Your task to perform on an android device: manage bookmarks in the chrome app Image 0: 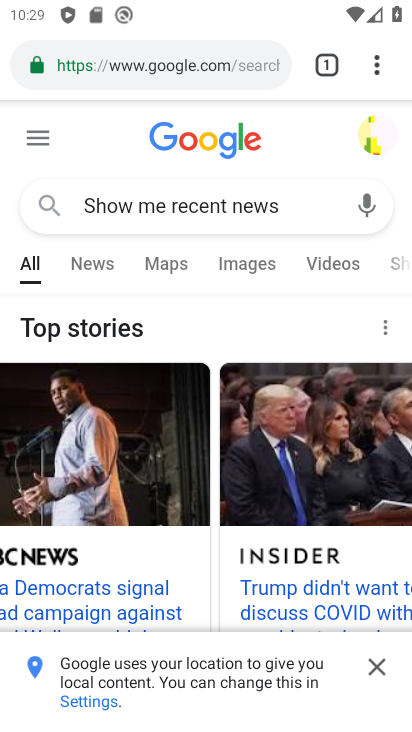
Step 0: drag from (377, 67) to (159, 240)
Your task to perform on an android device: manage bookmarks in the chrome app Image 1: 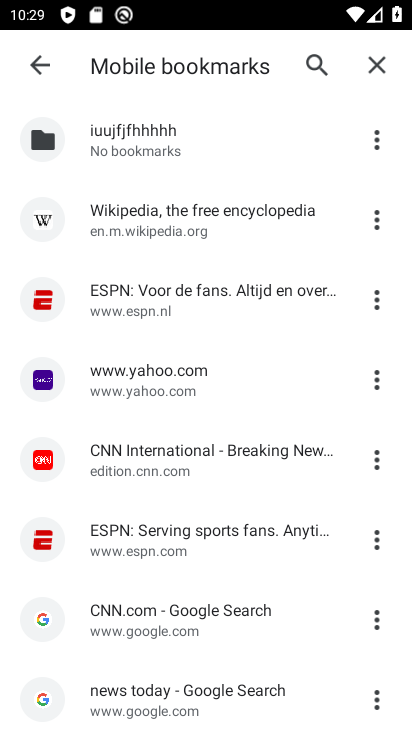
Step 1: click (377, 144)
Your task to perform on an android device: manage bookmarks in the chrome app Image 2: 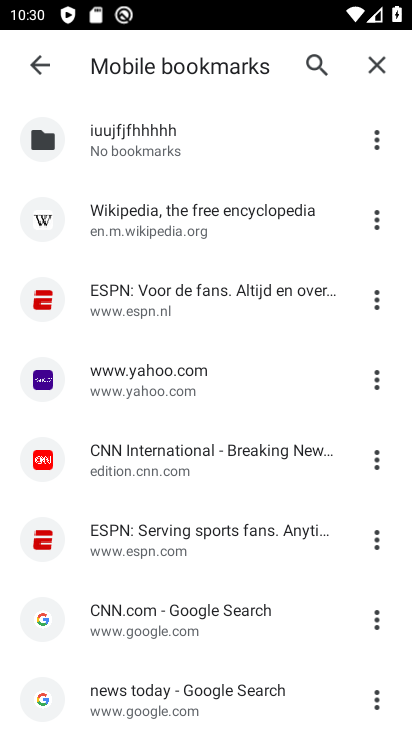
Step 2: click (373, 142)
Your task to perform on an android device: manage bookmarks in the chrome app Image 3: 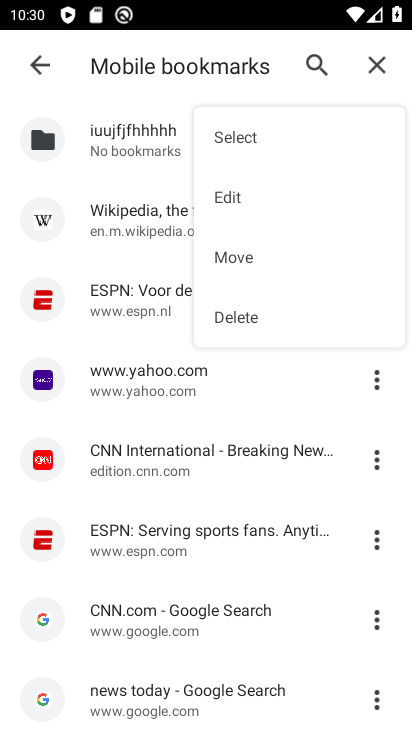
Step 3: click (298, 316)
Your task to perform on an android device: manage bookmarks in the chrome app Image 4: 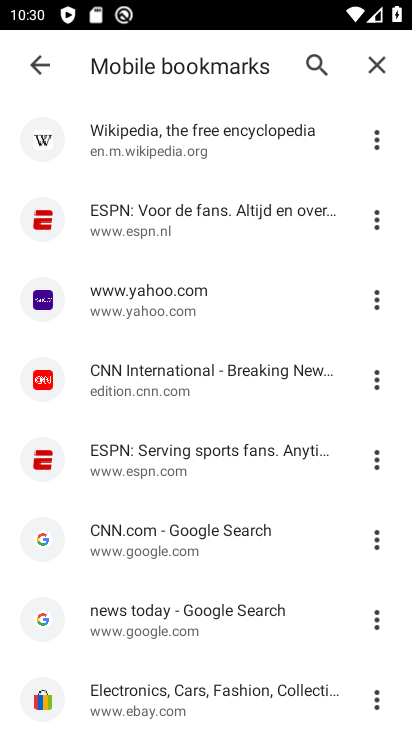
Step 4: click (375, 540)
Your task to perform on an android device: manage bookmarks in the chrome app Image 5: 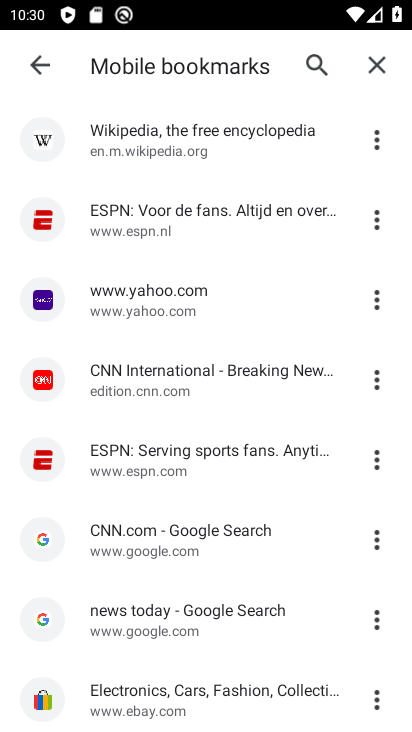
Step 5: click (375, 540)
Your task to perform on an android device: manage bookmarks in the chrome app Image 6: 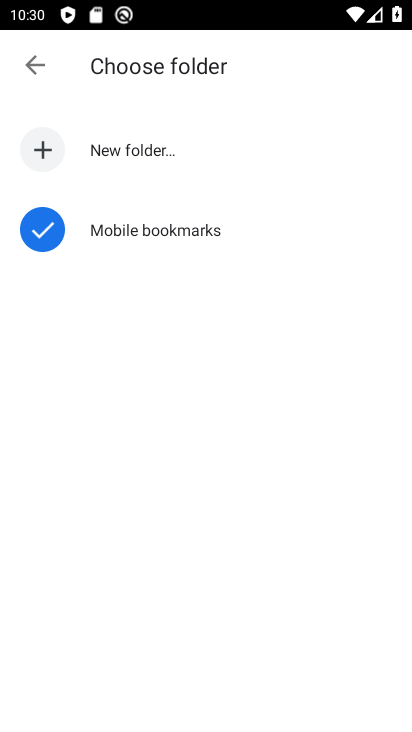
Step 6: click (34, 75)
Your task to perform on an android device: manage bookmarks in the chrome app Image 7: 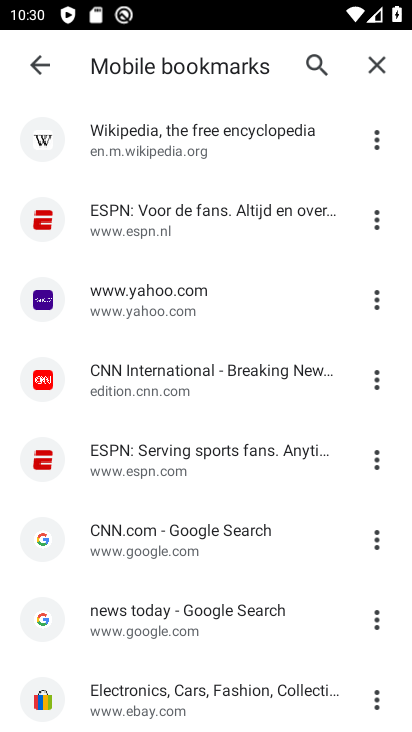
Step 7: task complete